Your task to perform on an android device: Search for pizza restaurants on Maps Image 0: 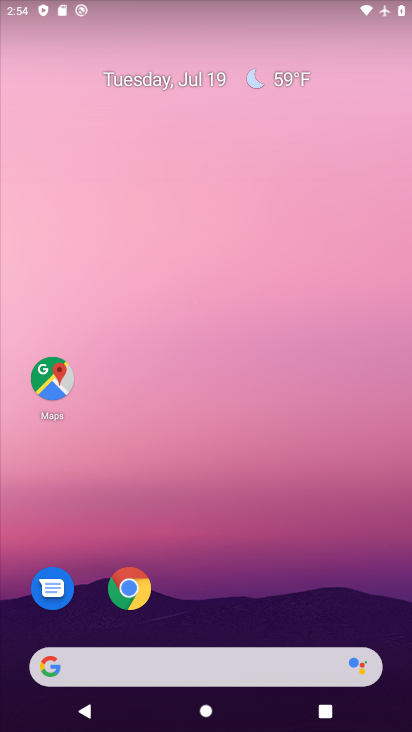
Step 0: drag from (251, 616) to (217, 3)
Your task to perform on an android device: Search for pizza restaurants on Maps Image 1: 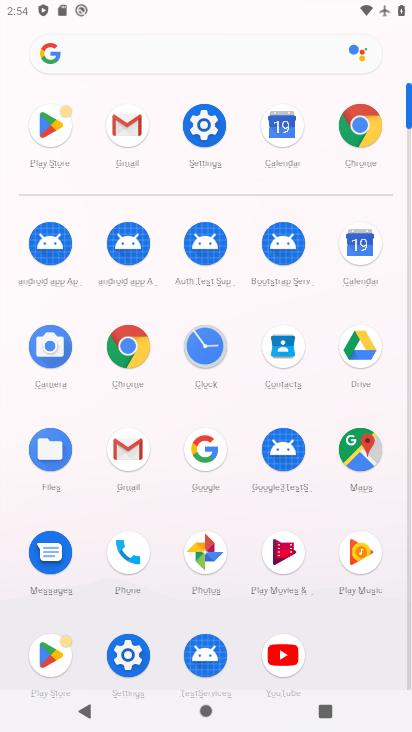
Step 1: click (364, 439)
Your task to perform on an android device: Search for pizza restaurants on Maps Image 2: 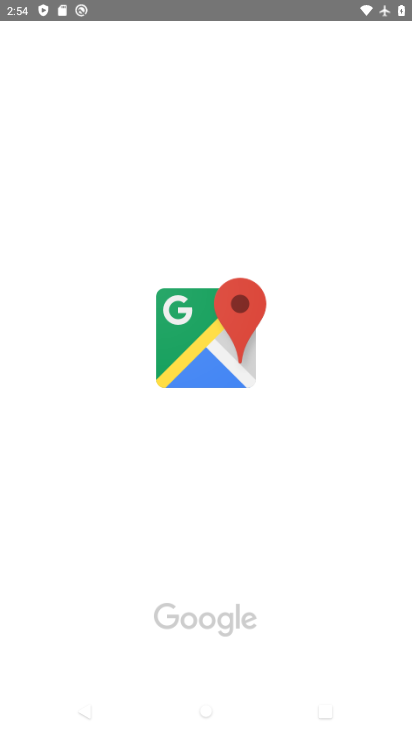
Step 2: click (364, 439)
Your task to perform on an android device: Search for pizza restaurants on Maps Image 3: 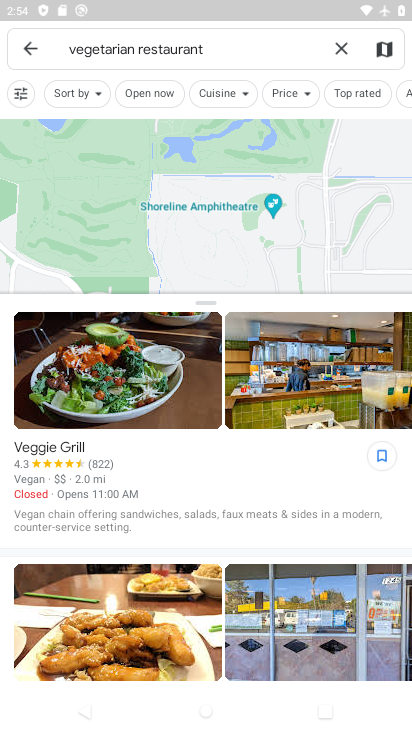
Step 3: click (342, 48)
Your task to perform on an android device: Search for pizza restaurants on Maps Image 4: 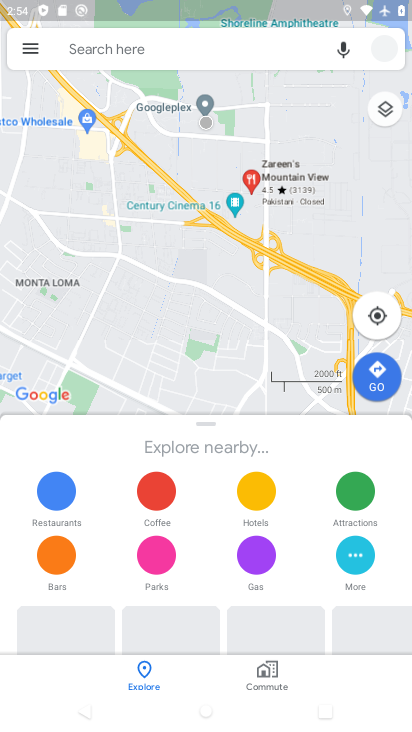
Step 4: click (61, 49)
Your task to perform on an android device: Search for pizza restaurants on Maps Image 5: 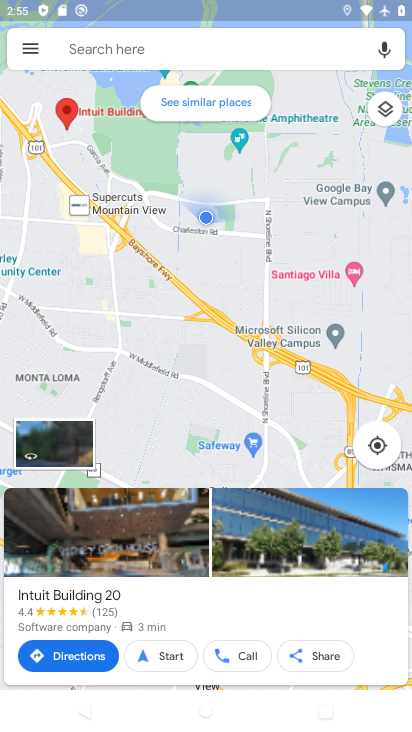
Step 5: click (149, 42)
Your task to perform on an android device: Search for pizza restaurants on Maps Image 6: 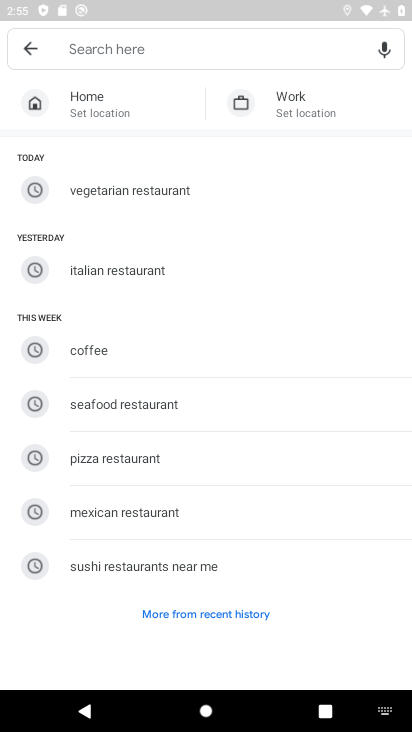
Step 6: click (132, 465)
Your task to perform on an android device: Search for pizza restaurants on Maps Image 7: 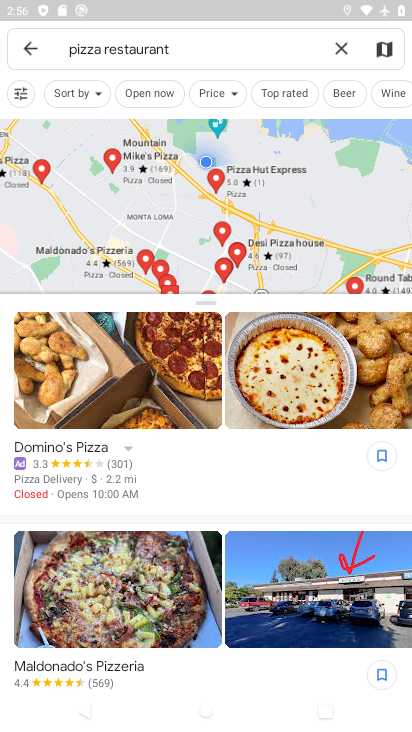
Step 7: task complete